Your task to perform on an android device: open app "Fetch Rewards" Image 0: 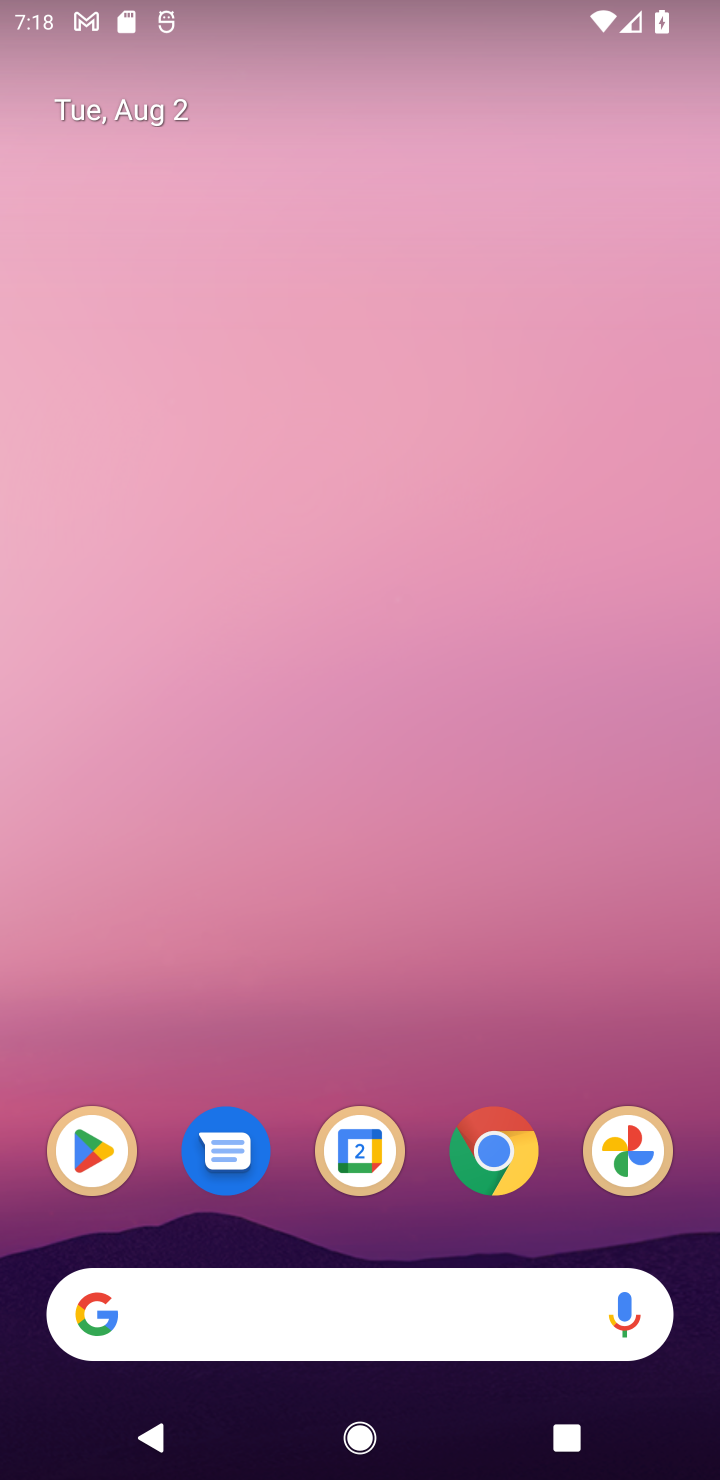
Step 0: click (78, 1176)
Your task to perform on an android device: open app "Fetch Rewards" Image 1: 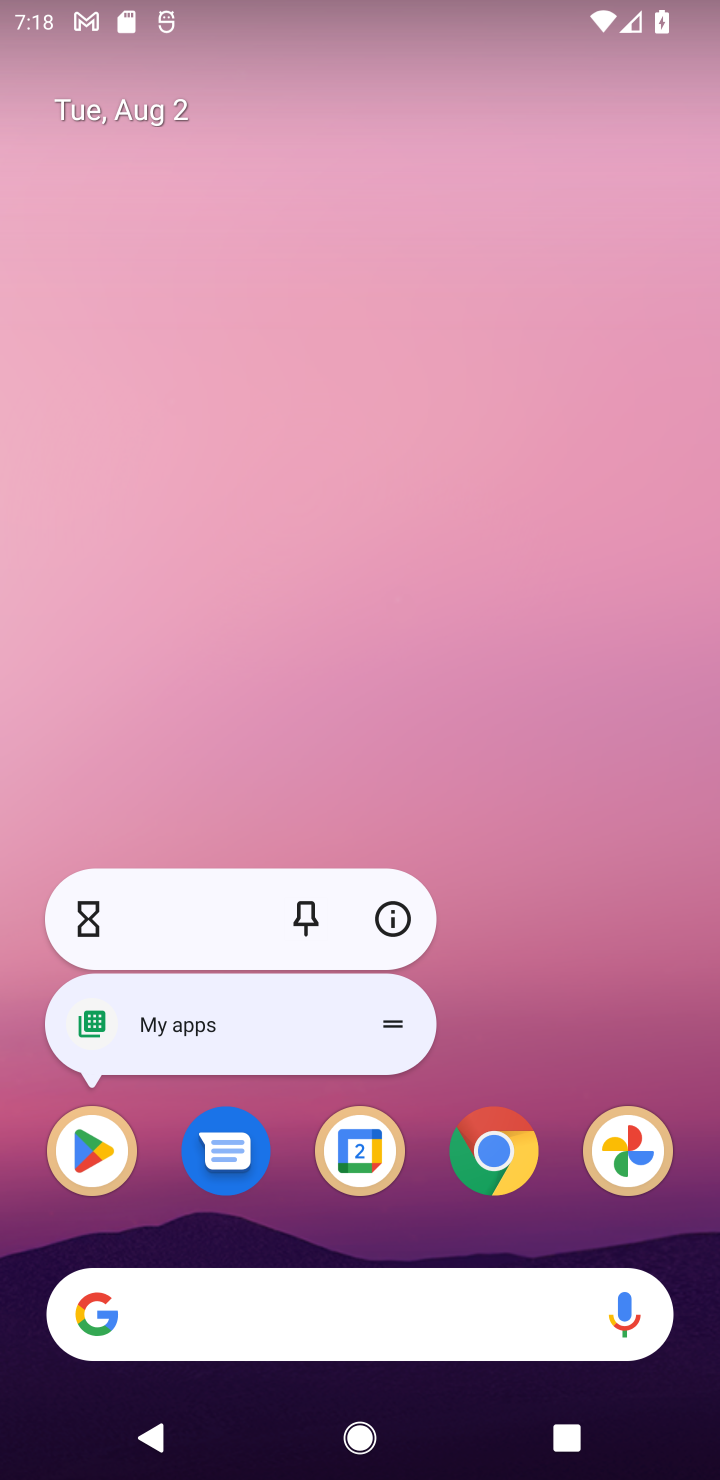
Step 1: click (78, 1176)
Your task to perform on an android device: open app "Fetch Rewards" Image 2: 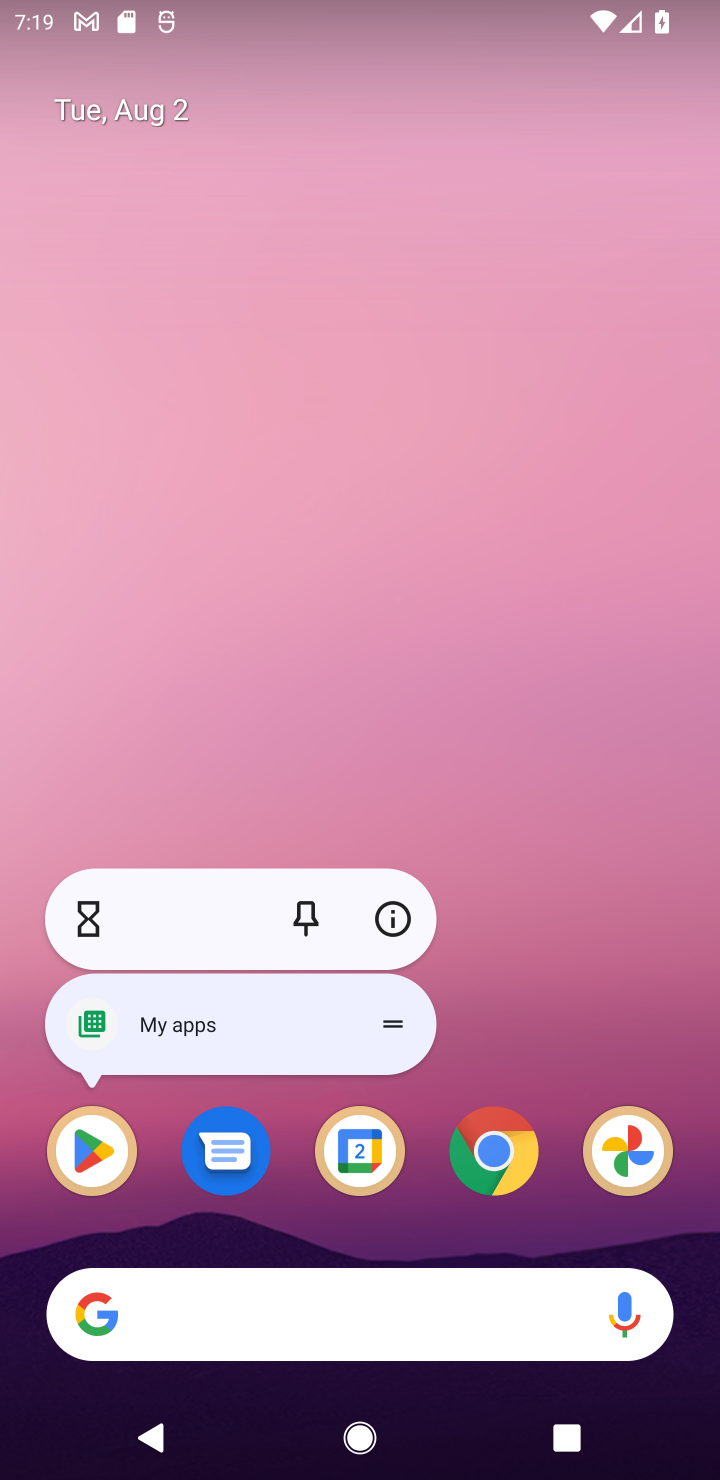
Step 2: click (78, 1174)
Your task to perform on an android device: open app "Fetch Rewards" Image 3: 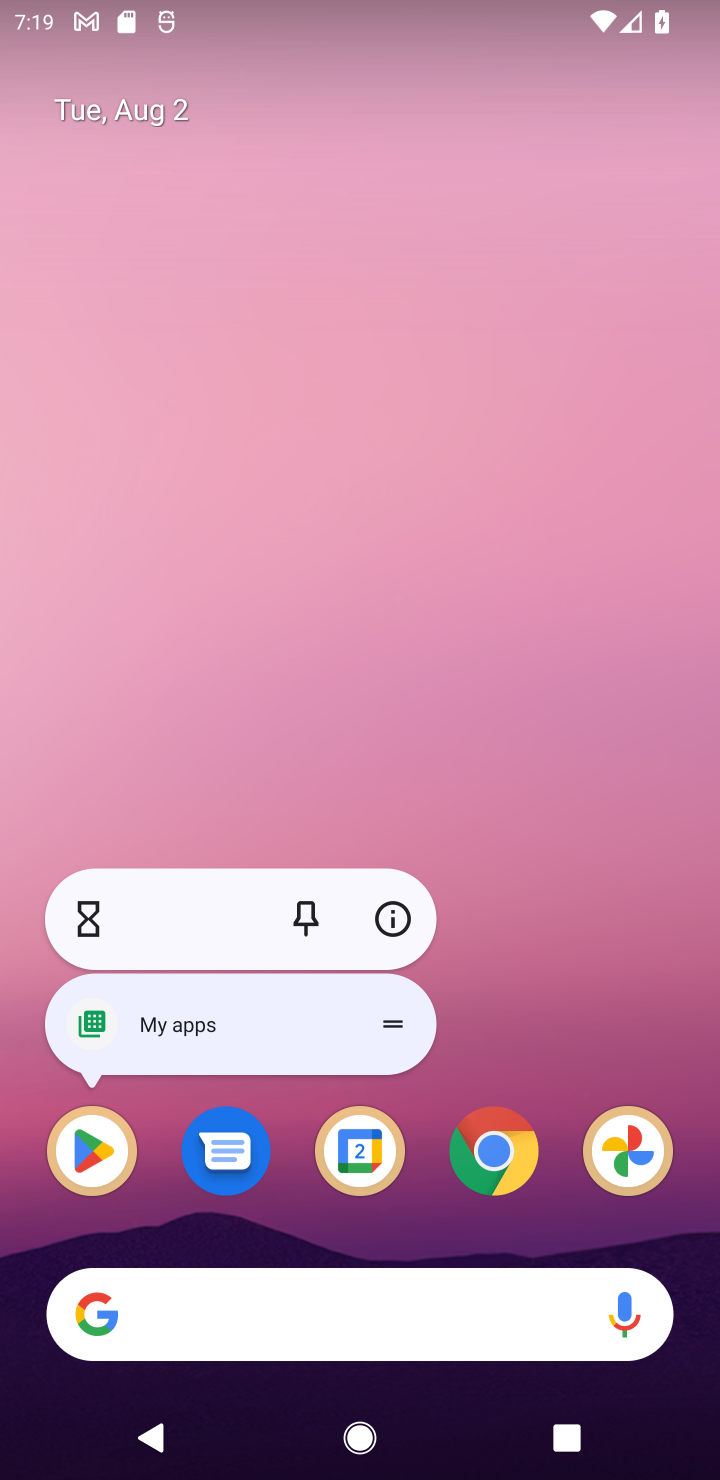
Step 3: click (78, 1174)
Your task to perform on an android device: open app "Fetch Rewards" Image 4: 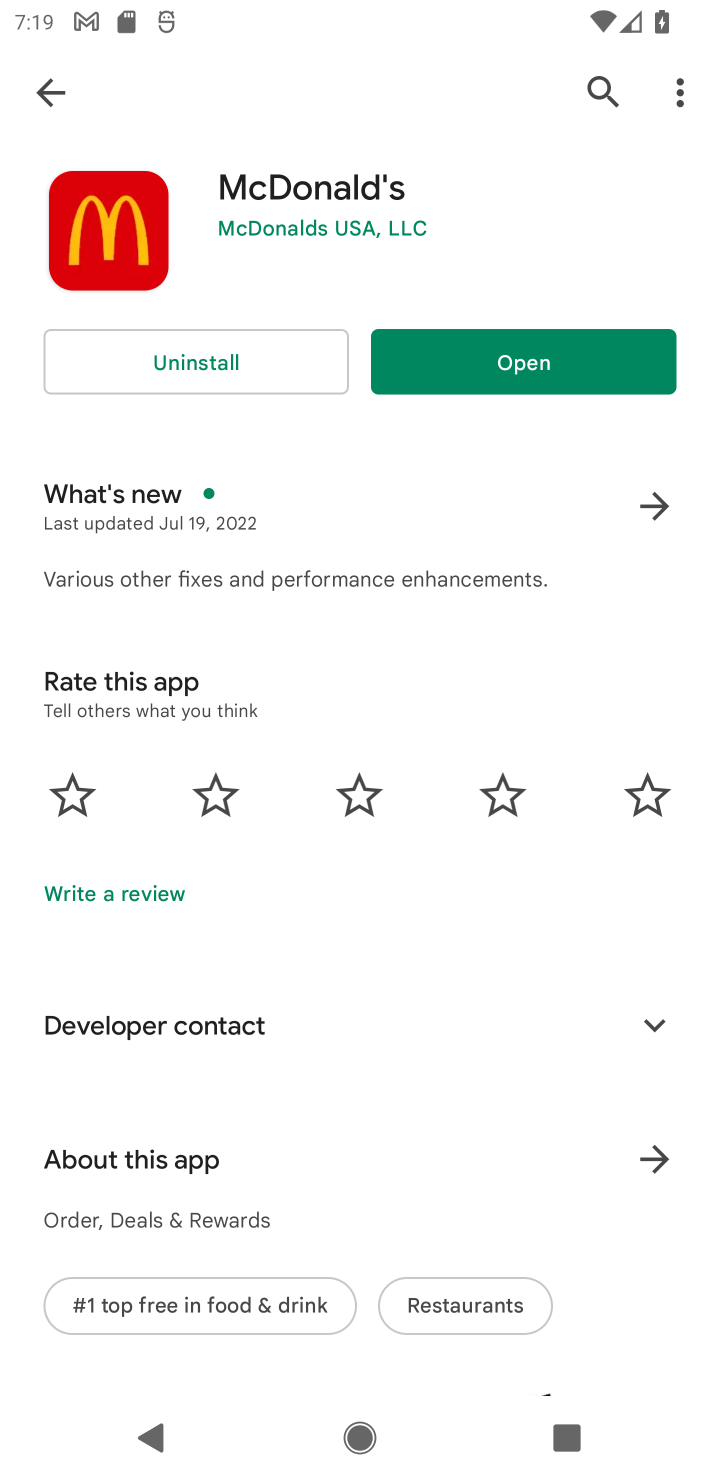
Step 4: click (42, 94)
Your task to perform on an android device: open app "Fetch Rewards" Image 5: 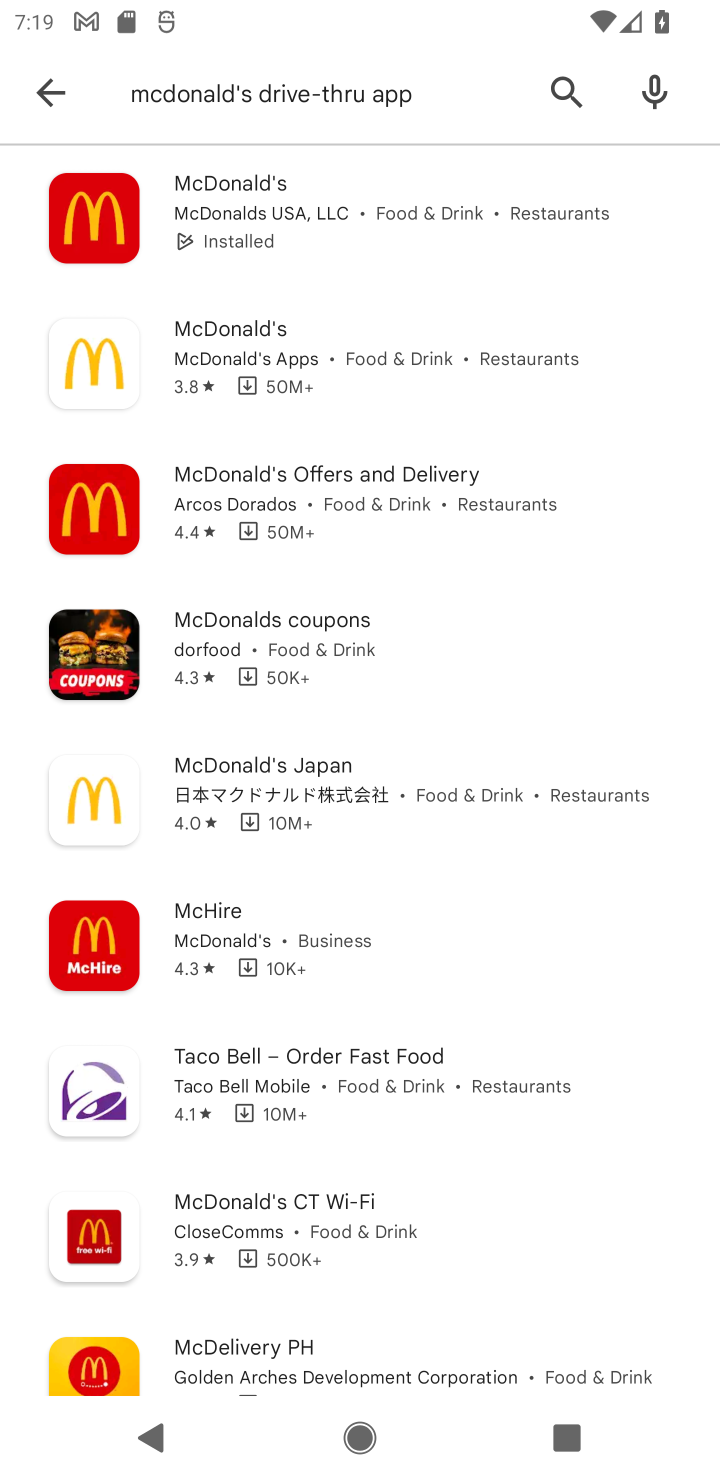
Step 5: click (43, 102)
Your task to perform on an android device: open app "Fetch Rewards" Image 6: 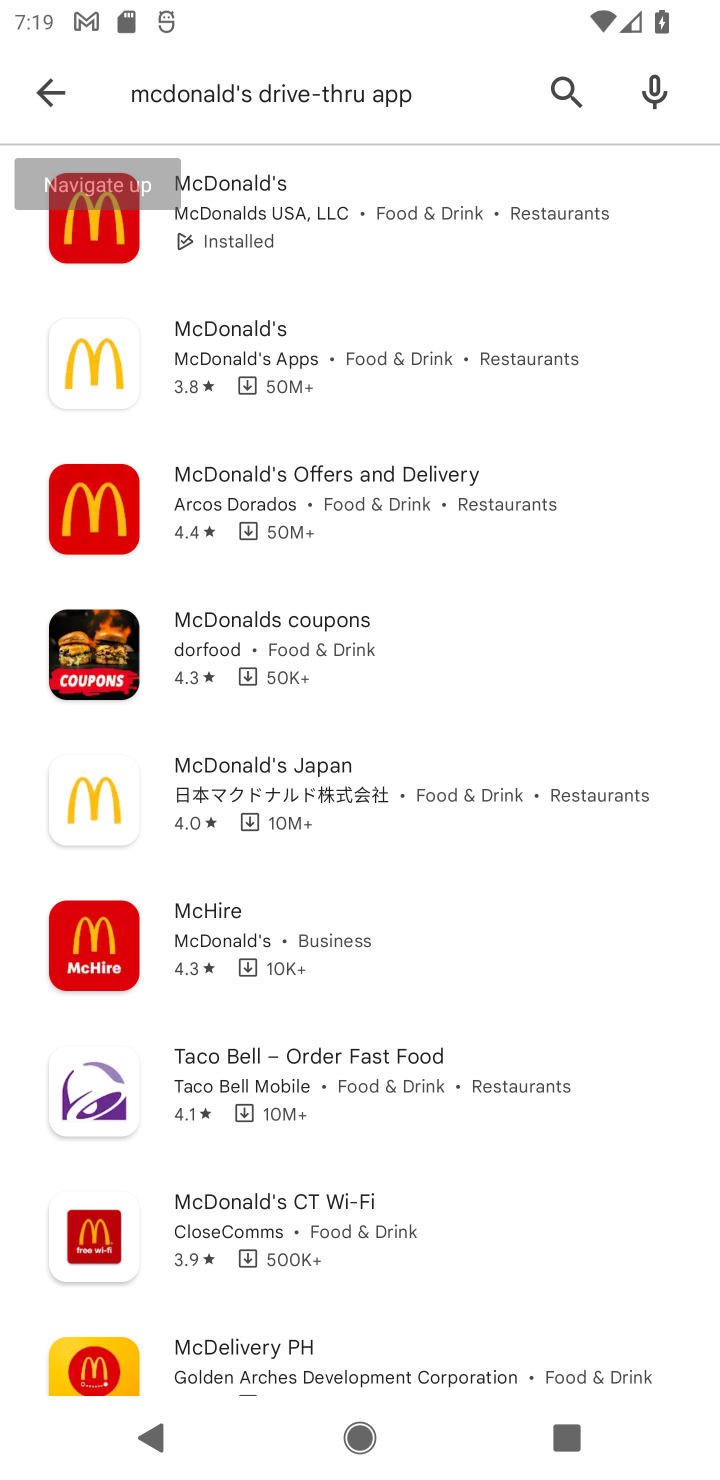
Step 6: click (45, 100)
Your task to perform on an android device: open app "Fetch Rewards" Image 7: 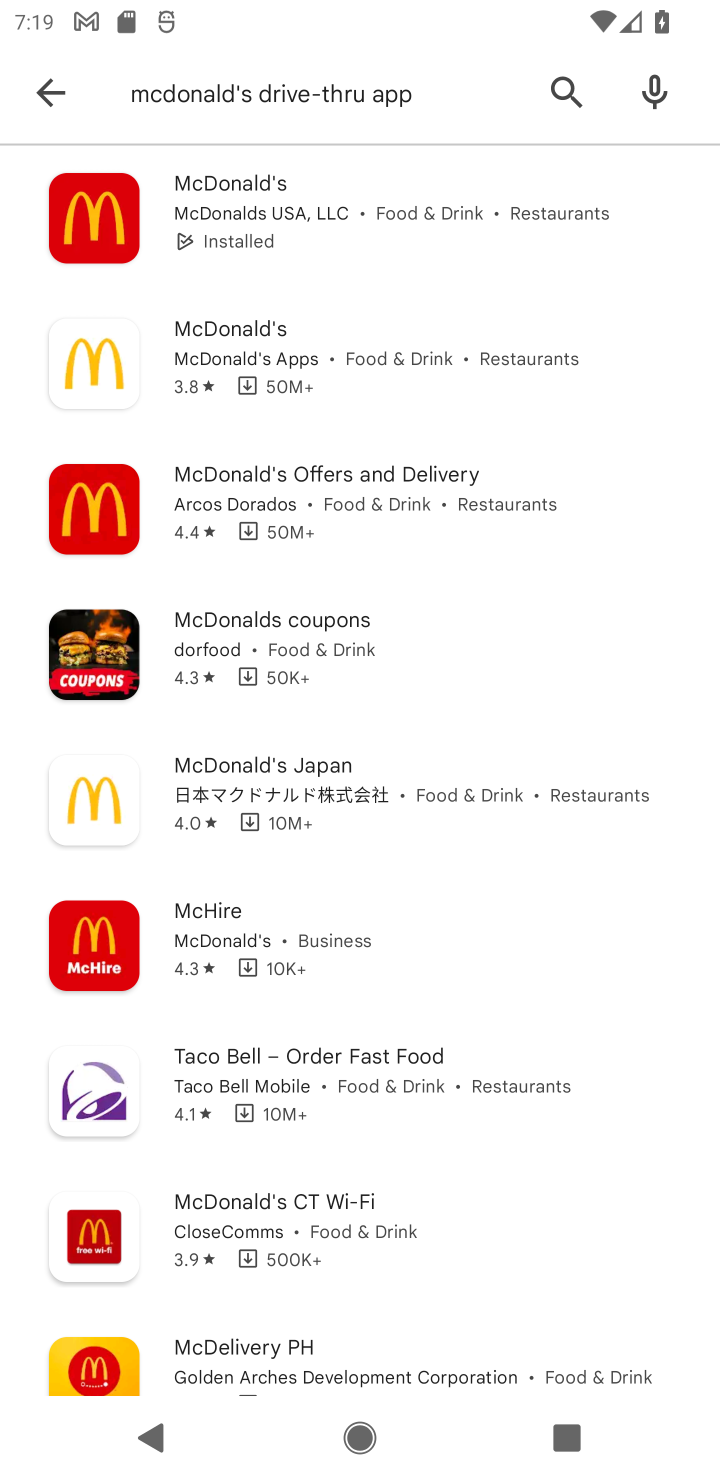
Step 7: click (45, 100)
Your task to perform on an android device: open app "Fetch Rewards" Image 8: 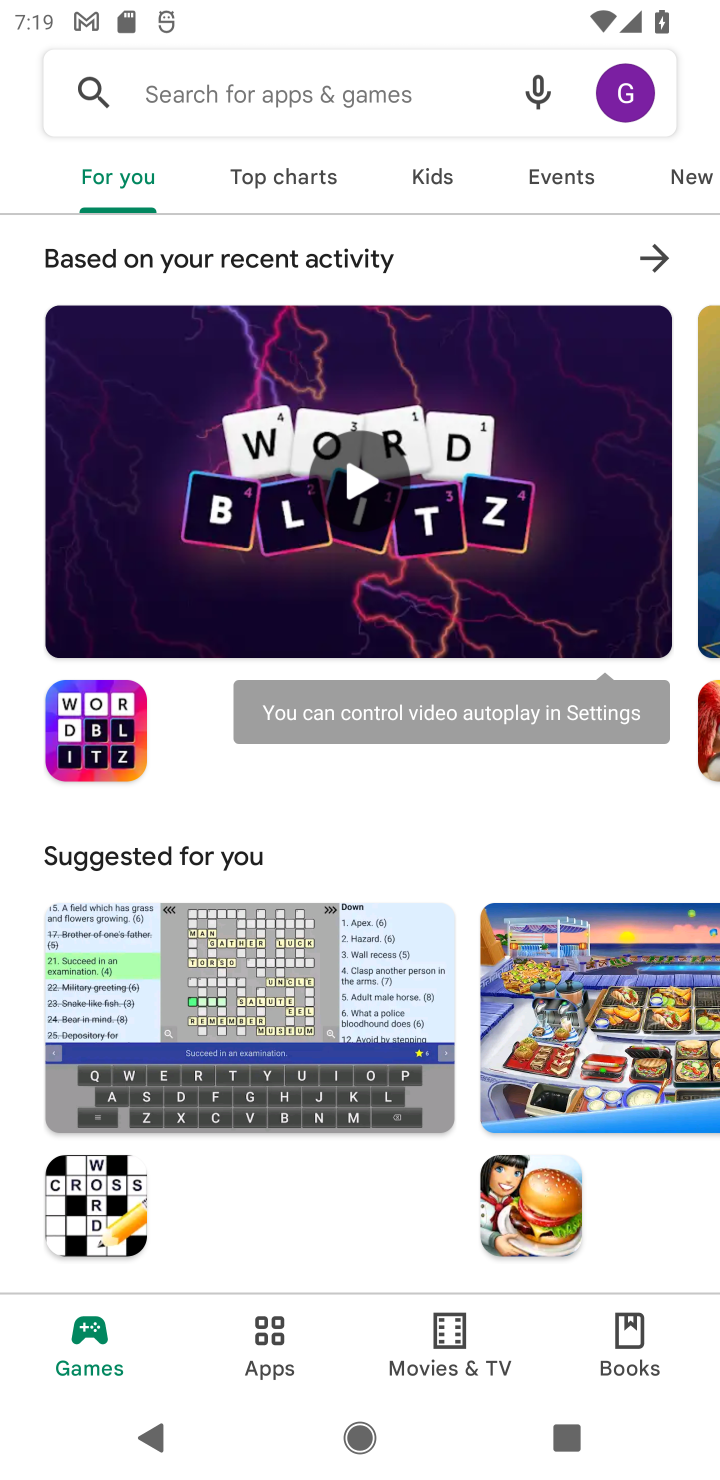
Step 8: click (187, 57)
Your task to perform on an android device: open app "Fetch Rewards" Image 9: 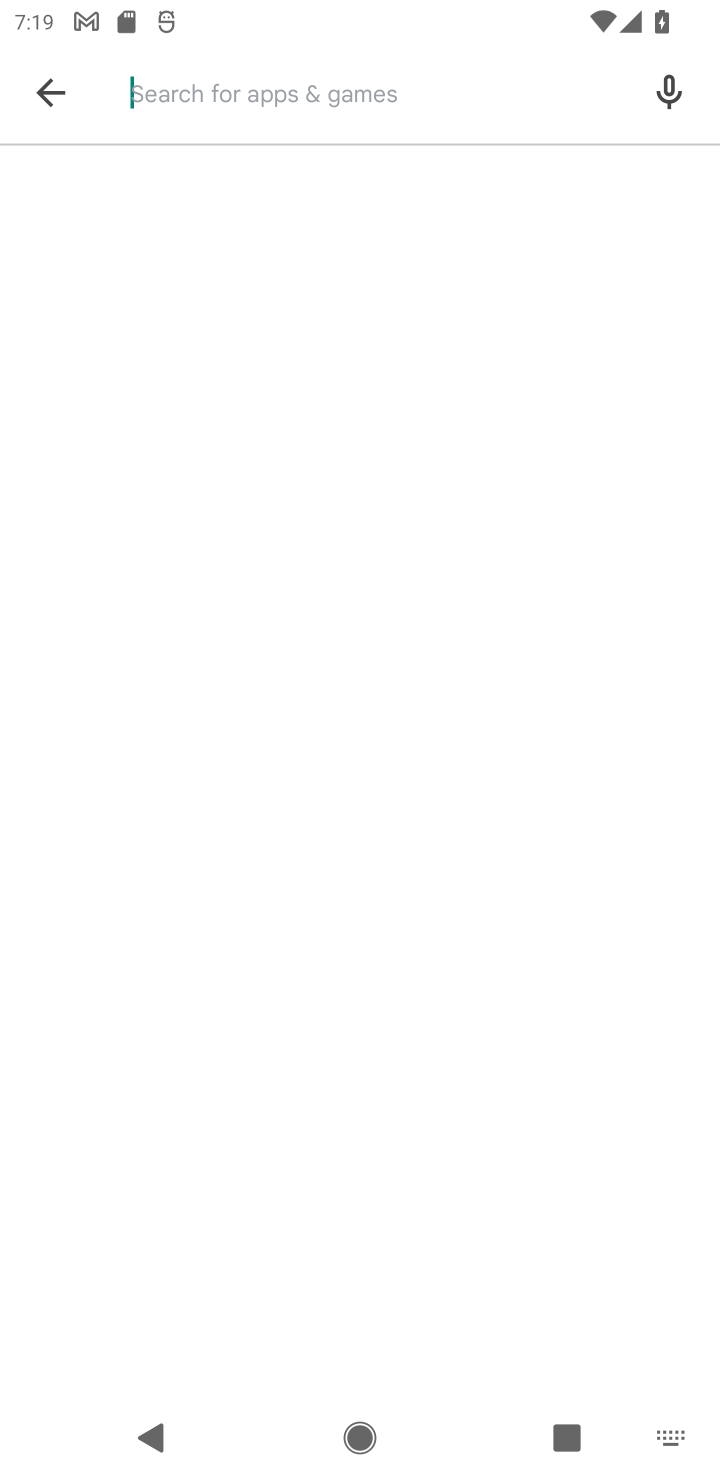
Step 9: click (211, 84)
Your task to perform on an android device: open app "Fetch Rewards" Image 10: 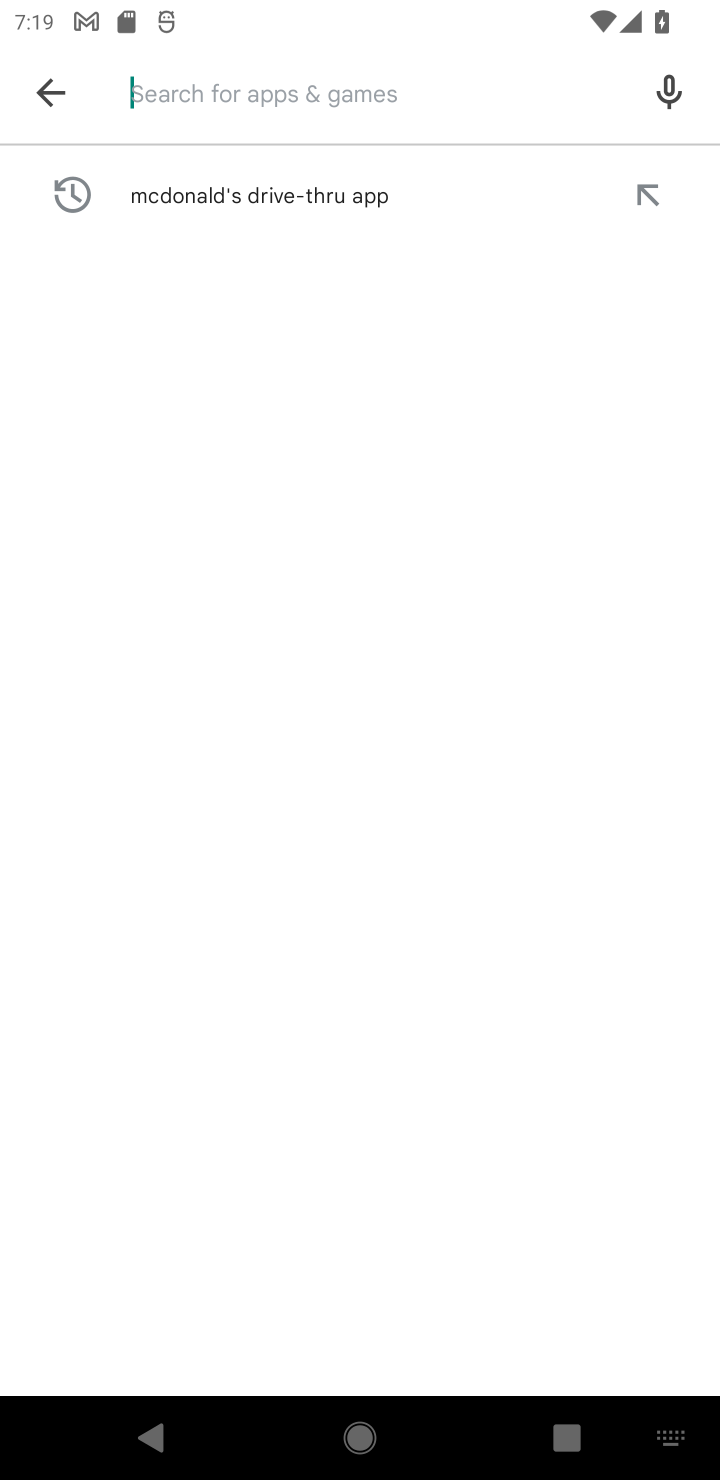
Step 10: type "Fetch Rewards"
Your task to perform on an android device: open app "Fetch Rewards" Image 11: 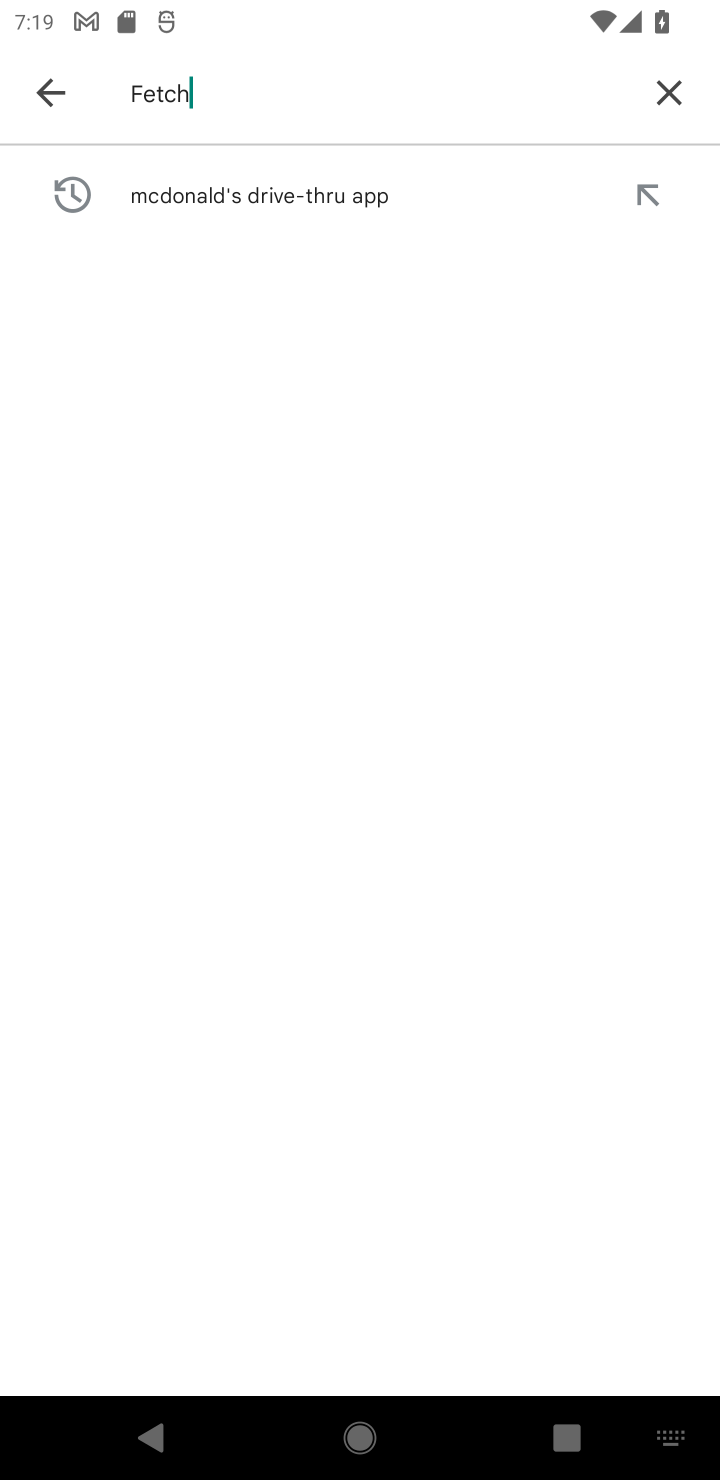
Step 11: type ""
Your task to perform on an android device: open app "Fetch Rewards" Image 12: 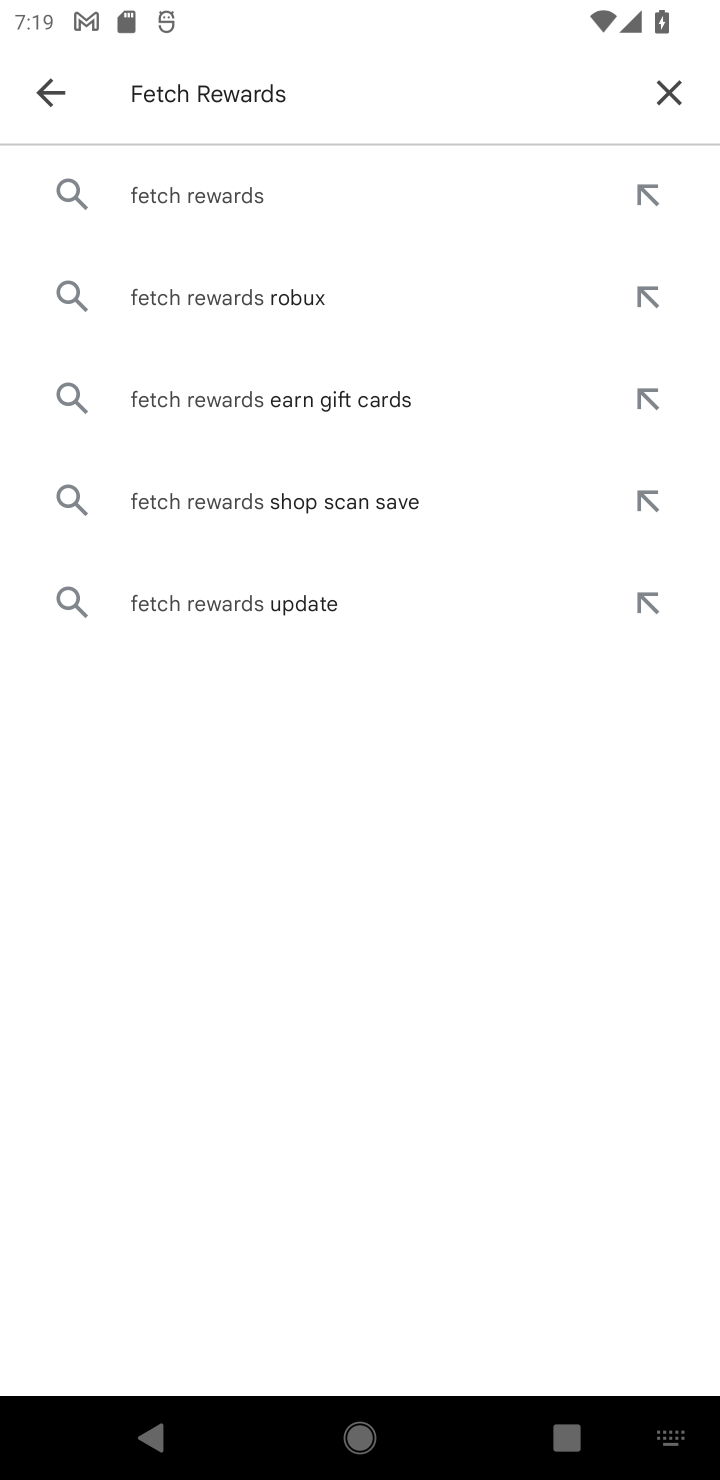
Step 12: click (168, 217)
Your task to perform on an android device: open app "Fetch Rewards" Image 13: 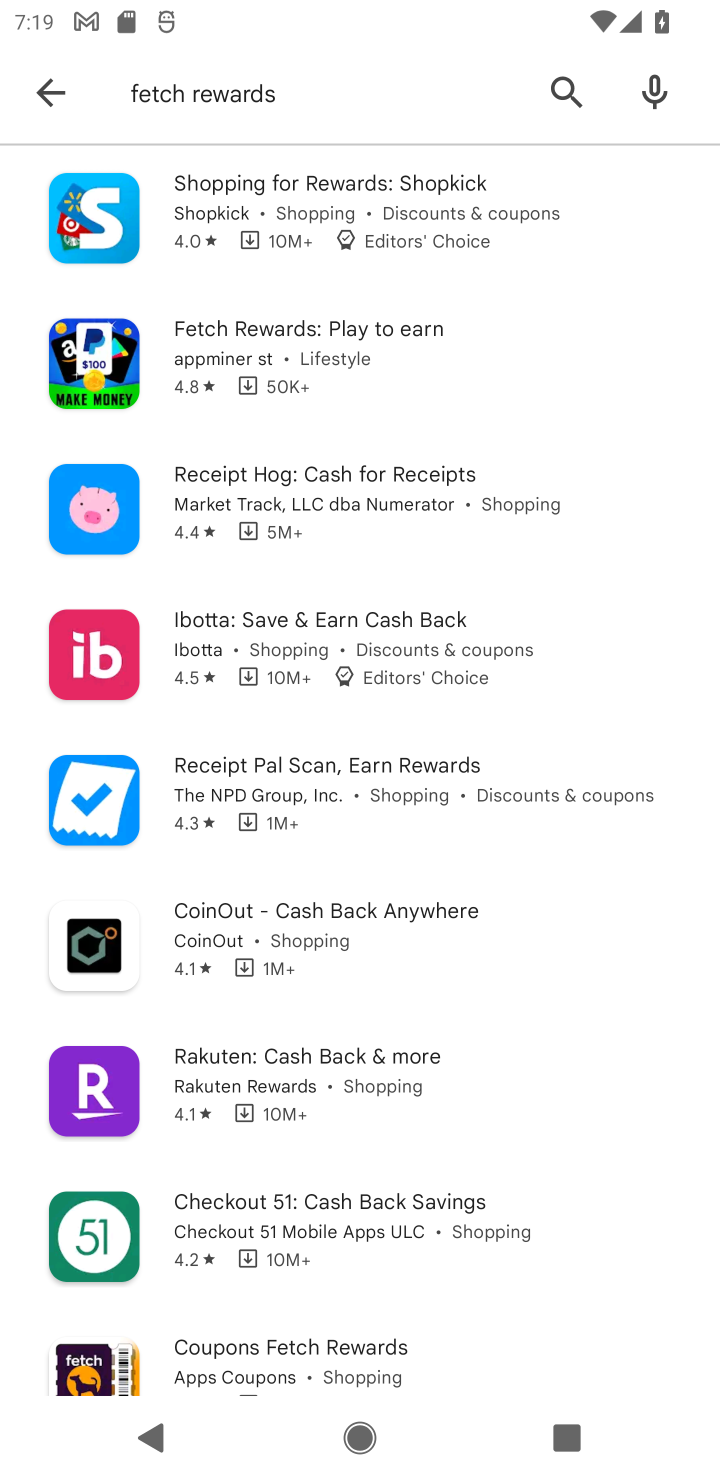
Step 13: click (503, 389)
Your task to perform on an android device: open app "Fetch Rewards" Image 14: 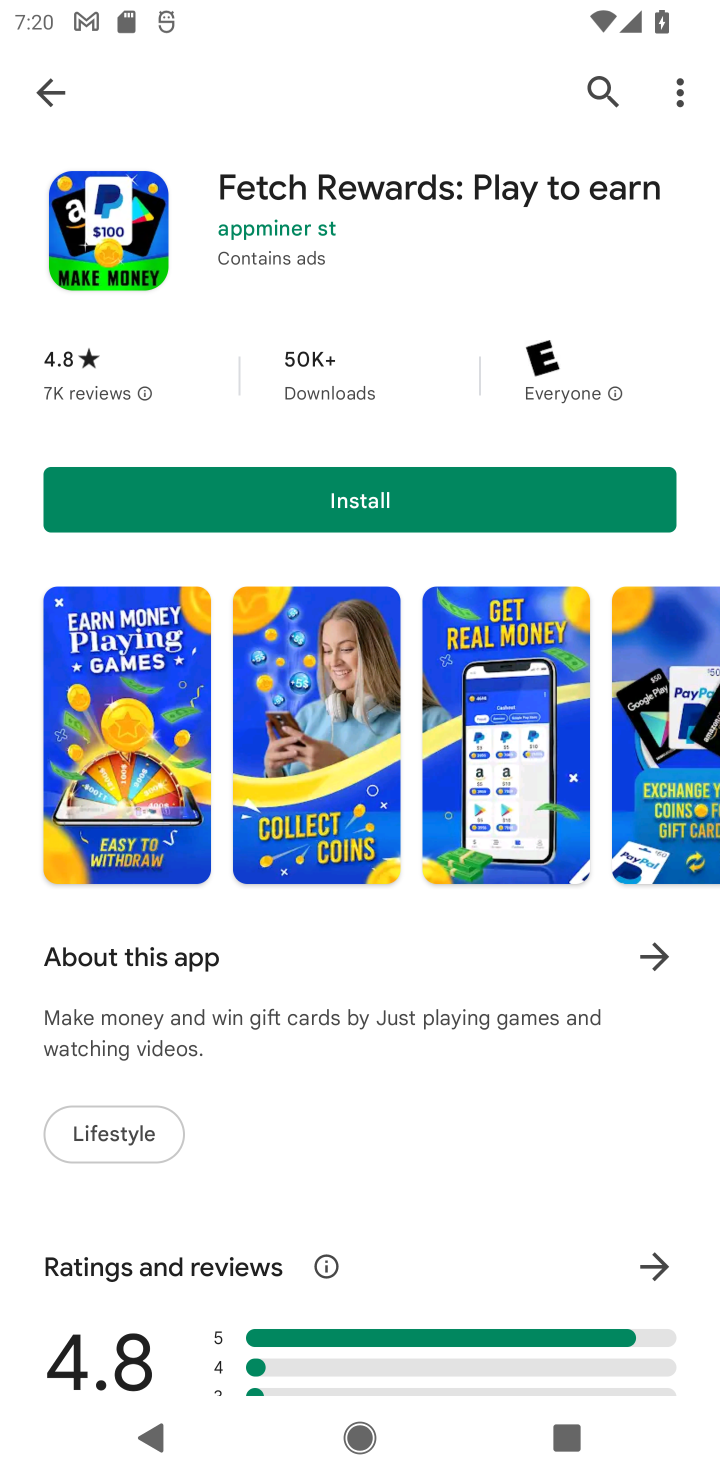
Step 14: task complete